Your task to perform on an android device: toggle notification dots Image 0: 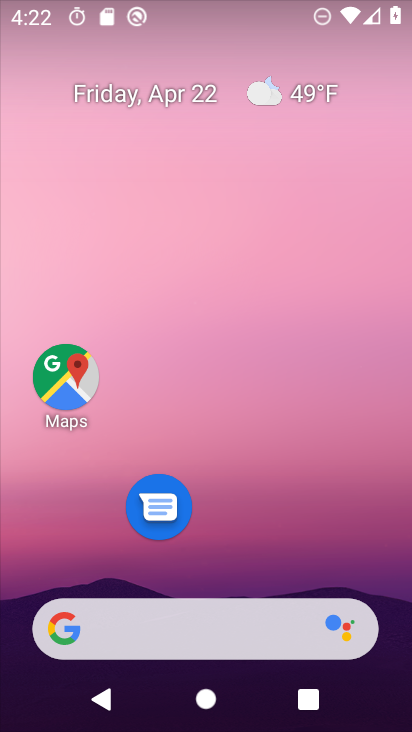
Step 0: drag from (208, 550) to (286, 108)
Your task to perform on an android device: toggle notification dots Image 1: 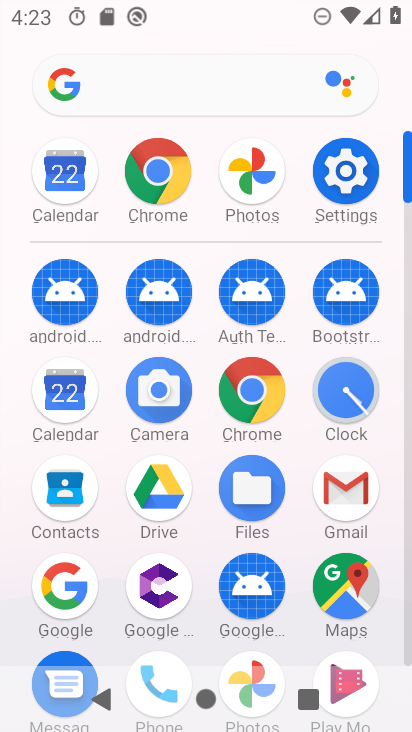
Step 1: click (328, 176)
Your task to perform on an android device: toggle notification dots Image 2: 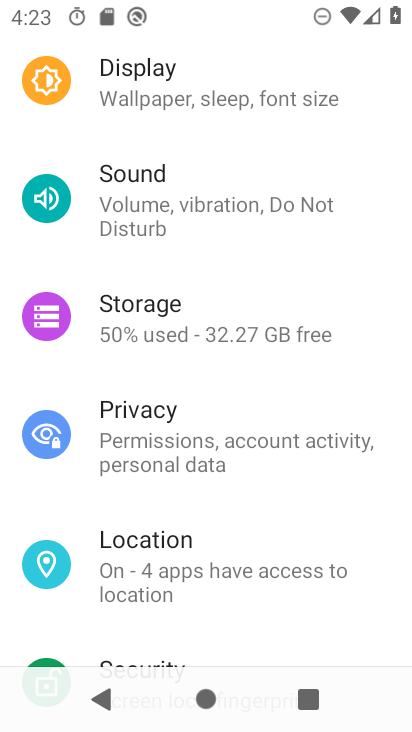
Step 2: drag from (236, 206) to (195, 601)
Your task to perform on an android device: toggle notification dots Image 3: 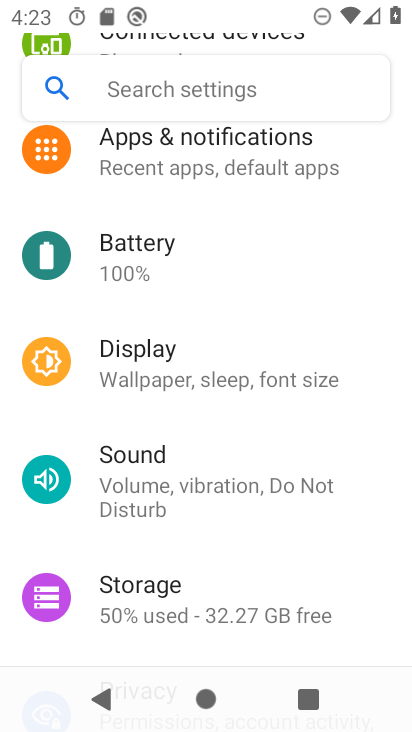
Step 3: click (202, 153)
Your task to perform on an android device: toggle notification dots Image 4: 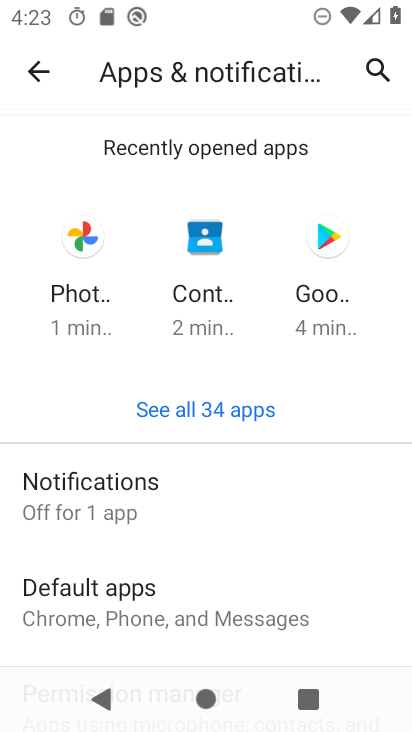
Step 4: click (161, 508)
Your task to perform on an android device: toggle notification dots Image 5: 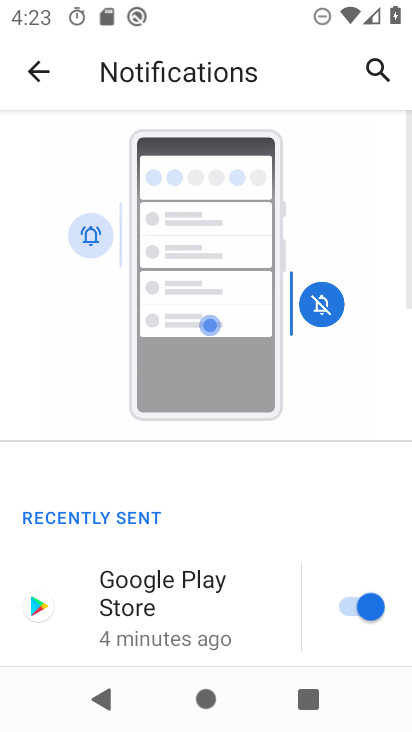
Step 5: drag from (167, 634) to (299, 157)
Your task to perform on an android device: toggle notification dots Image 6: 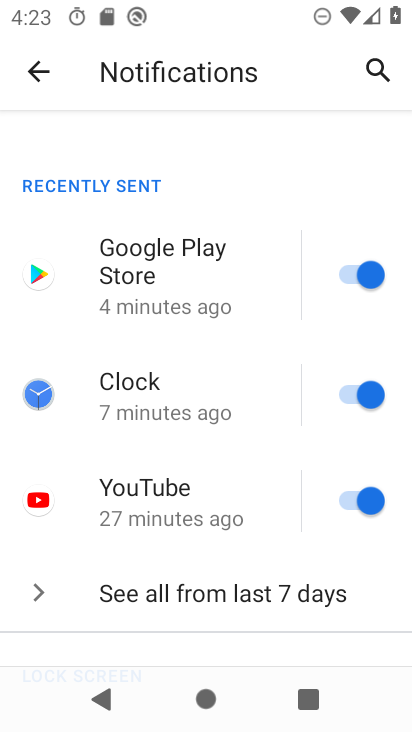
Step 6: drag from (122, 593) to (272, 60)
Your task to perform on an android device: toggle notification dots Image 7: 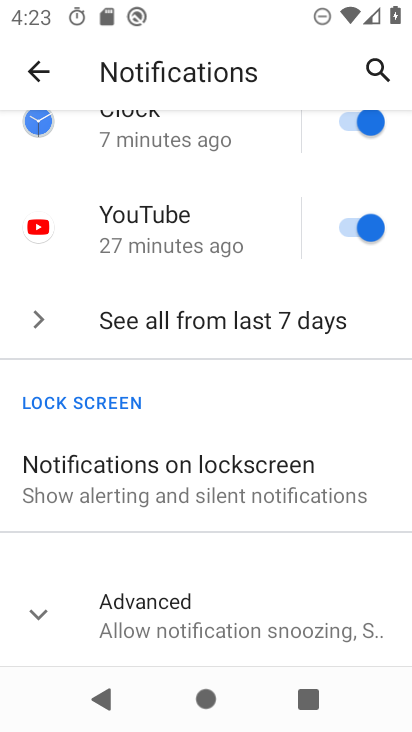
Step 7: click (191, 612)
Your task to perform on an android device: toggle notification dots Image 8: 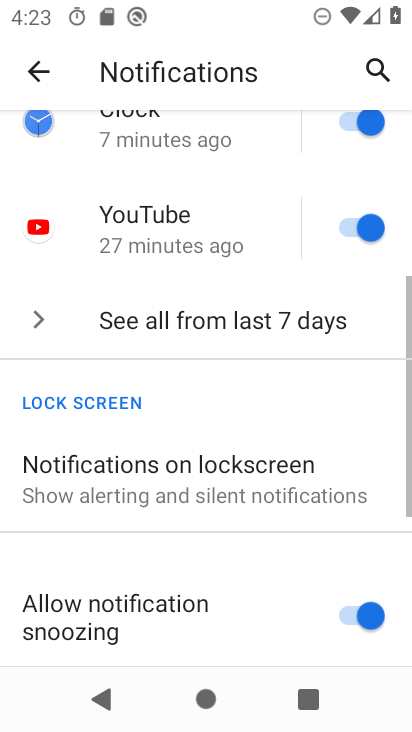
Step 8: drag from (187, 601) to (276, 58)
Your task to perform on an android device: toggle notification dots Image 9: 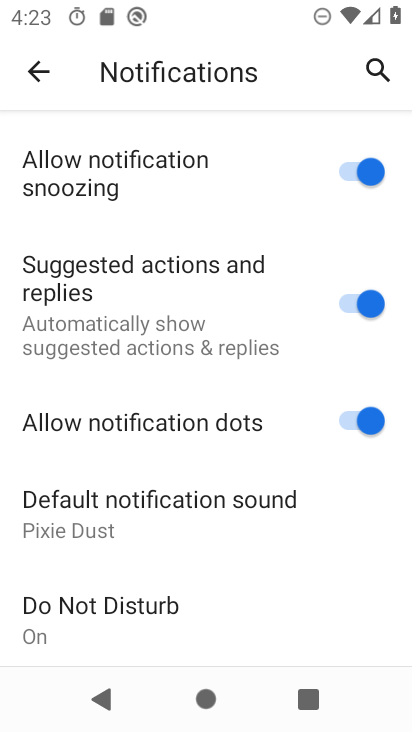
Step 9: click (367, 420)
Your task to perform on an android device: toggle notification dots Image 10: 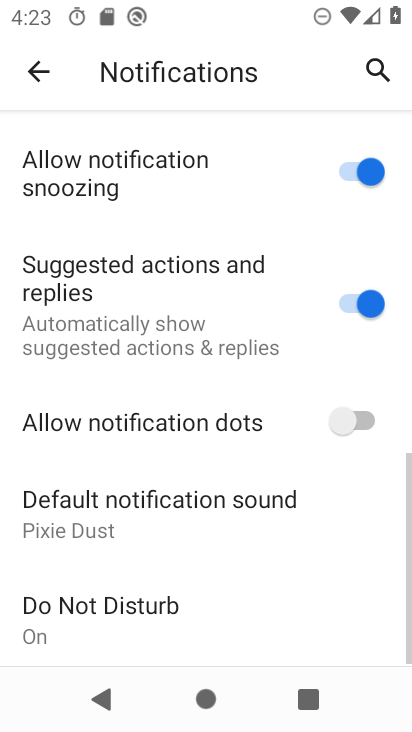
Step 10: task complete